Your task to perform on an android device: Check the news Image 0: 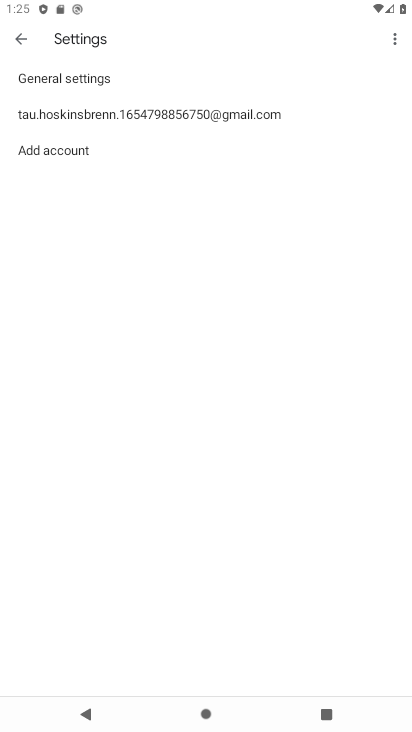
Step 0: press home button
Your task to perform on an android device: Check the news Image 1: 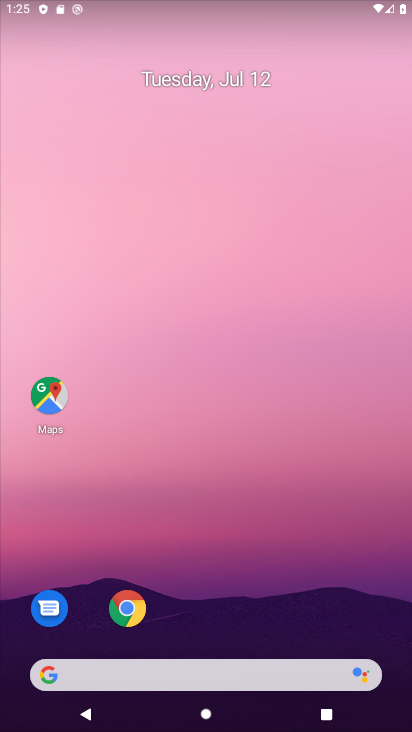
Step 1: task complete